Your task to perform on an android device: turn off location Image 0: 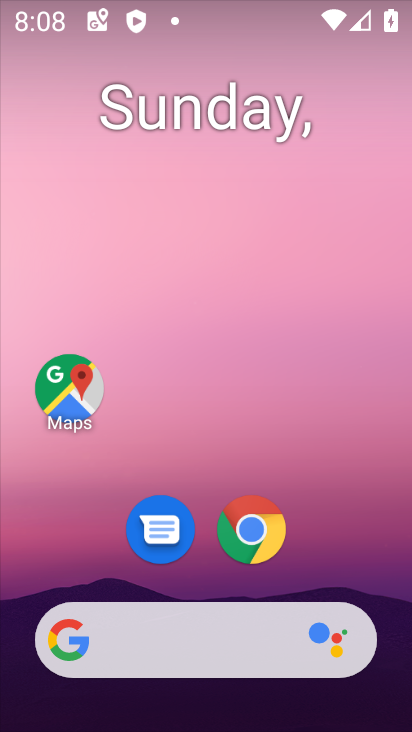
Step 0: drag from (370, 573) to (348, 124)
Your task to perform on an android device: turn off location Image 1: 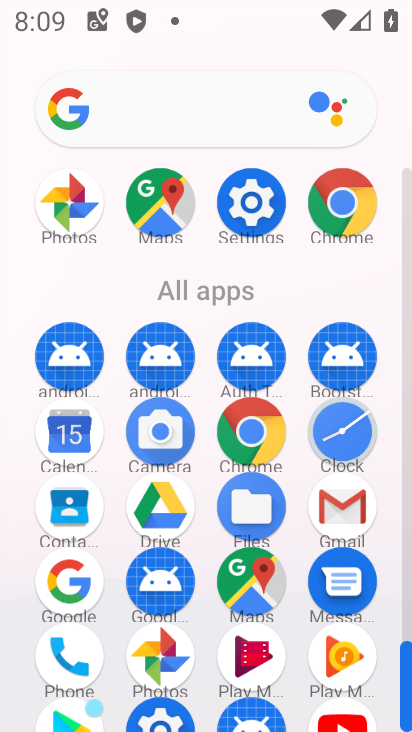
Step 1: click (248, 200)
Your task to perform on an android device: turn off location Image 2: 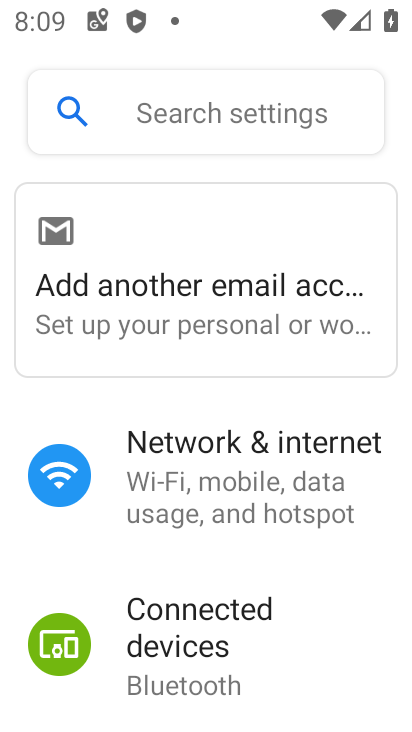
Step 2: drag from (304, 645) to (285, 216)
Your task to perform on an android device: turn off location Image 3: 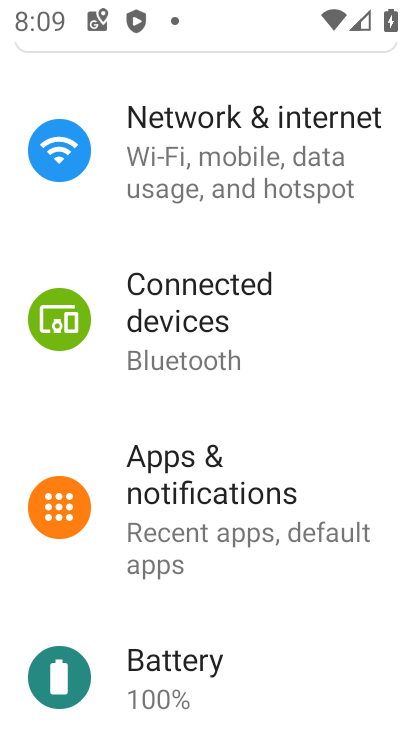
Step 3: drag from (288, 575) to (256, 201)
Your task to perform on an android device: turn off location Image 4: 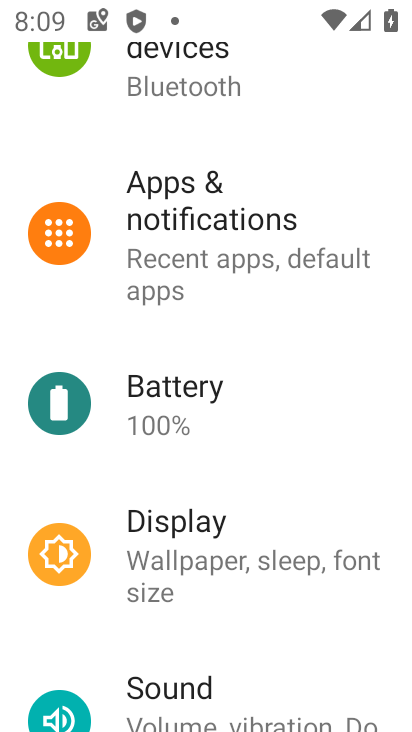
Step 4: drag from (265, 634) to (281, 228)
Your task to perform on an android device: turn off location Image 5: 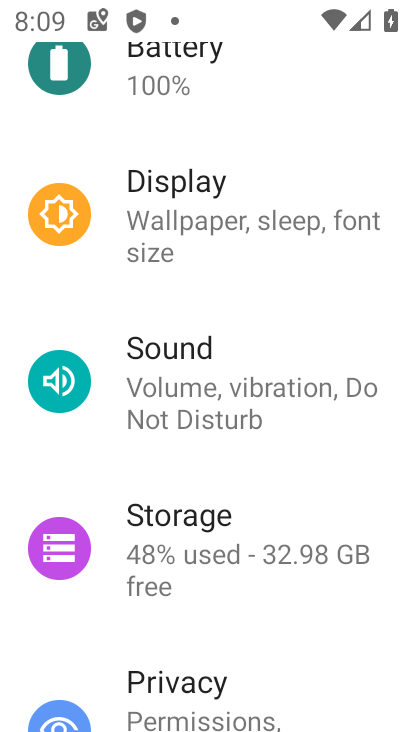
Step 5: drag from (301, 625) to (281, 226)
Your task to perform on an android device: turn off location Image 6: 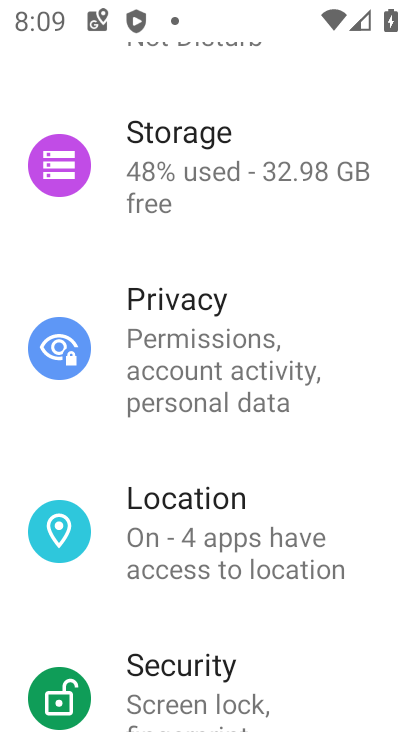
Step 6: click (286, 516)
Your task to perform on an android device: turn off location Image 7: 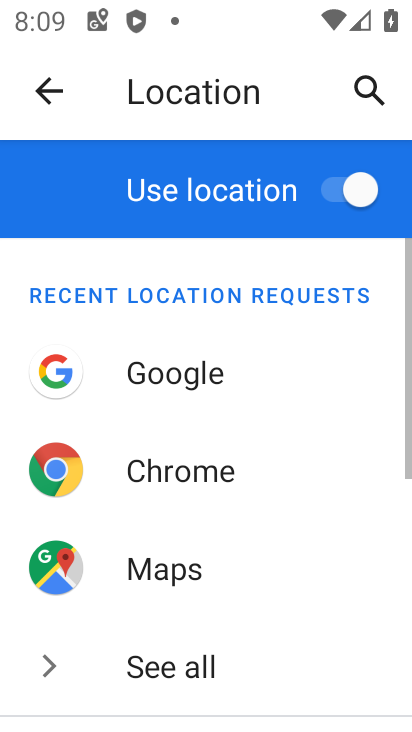
Step 7: drag from (310, 651) to (313, 221)
Your task to perform on an android device: turn off location Image 8: 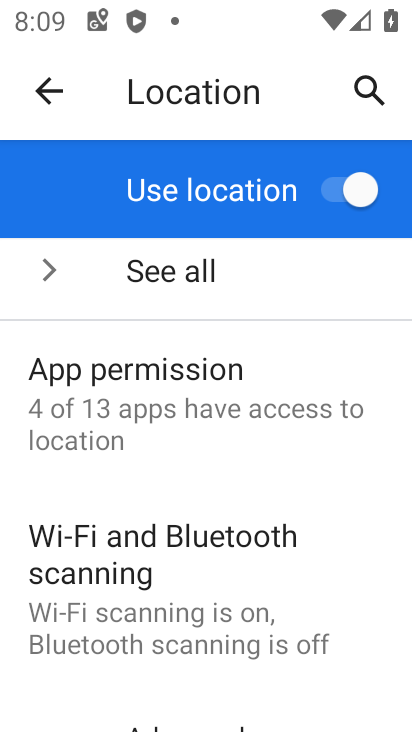
Step 8: drag from (341, 572) to (314, 324)
Your task to perform on an android device: turn off location Image 9: 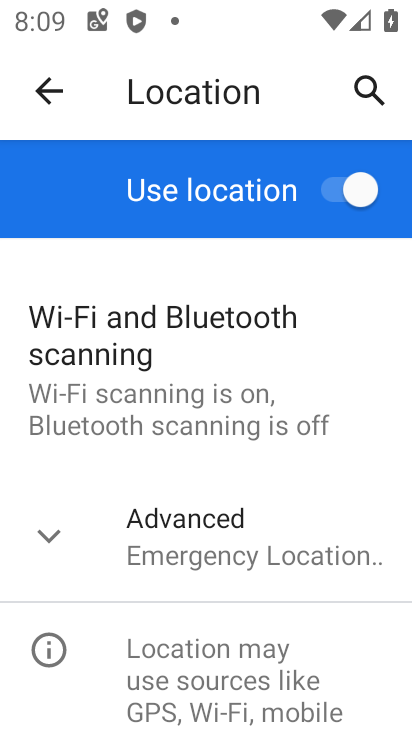
Step 9: drag from (339, 634) to (339, 341)
Your task to perform on an android device: turn off location Image 10: 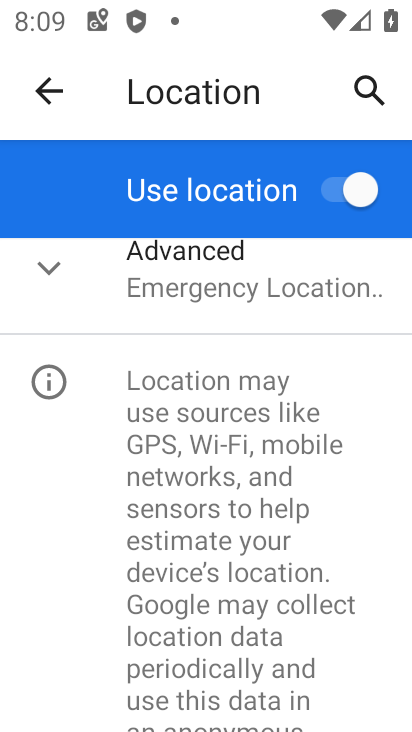
Step 10: drag from (363, 670) to (356, 347)
Your task to perform on an android device: turn off location Image 11: 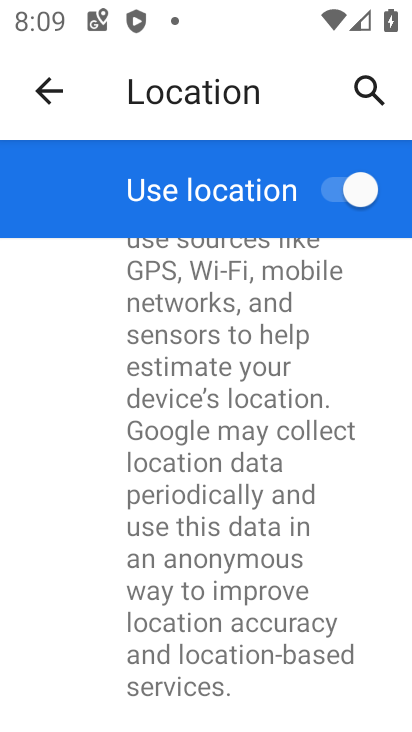
Step 11: drag from (353, 296) to (296, 659)
Your task to perform on an android device: turn off location Image 12: 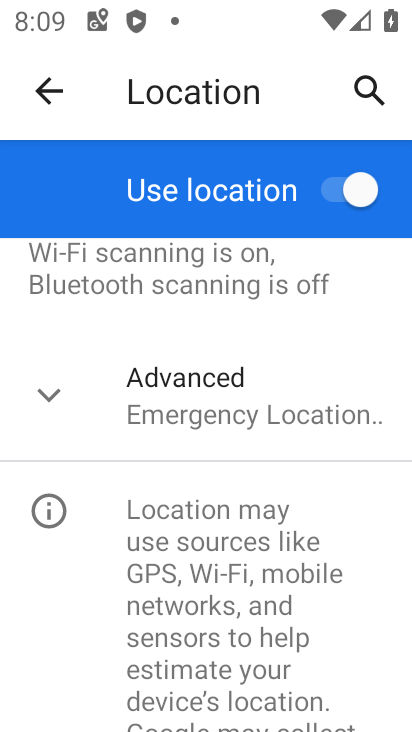
Step 12: drag from (288, 360) to (217, 650)
Your task to perform on an android device: turn off location Image 13: 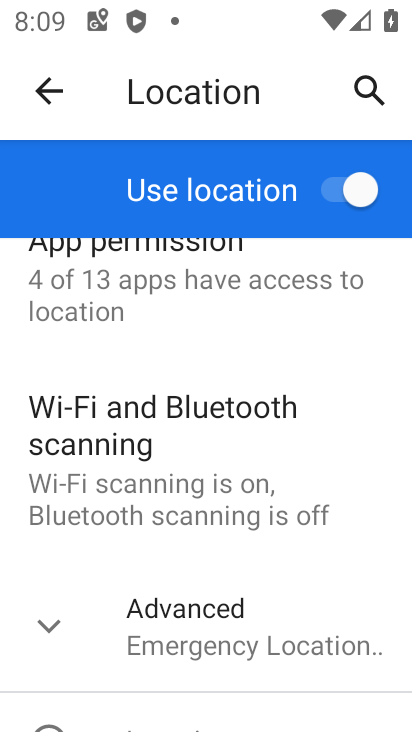
Step 13: drag from (133, 306) to (202, 582)
Your task to perform on an android device: turn off location Image 14: 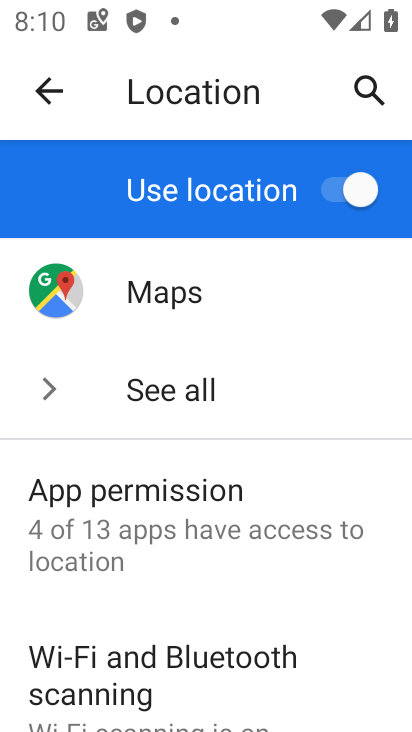
Step 14: drag from (288, 697) to (324, 433)
Your task to perform on an android device: turn off location Image 15: 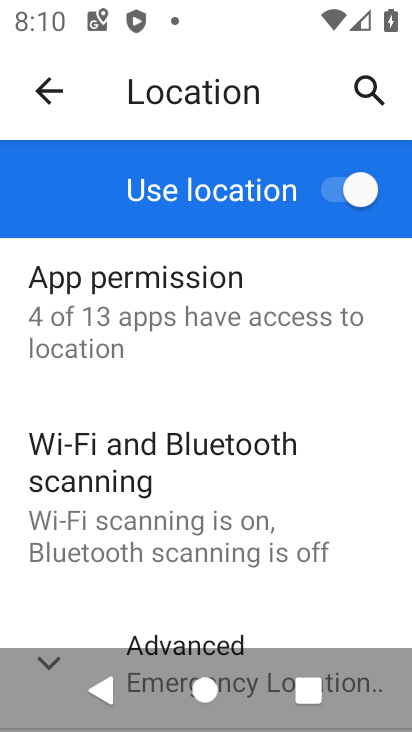
Step 15: drag from (323, 605) to (321, 392)
Your task to perform on an android device: turn off location Image 16: 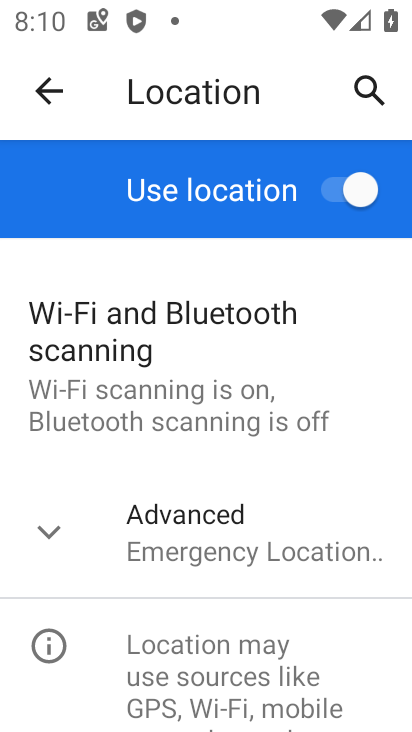
Step 16: drag from (333, 644) to (313, 402)
Your task to perform on an android device: turn off location Image 17: 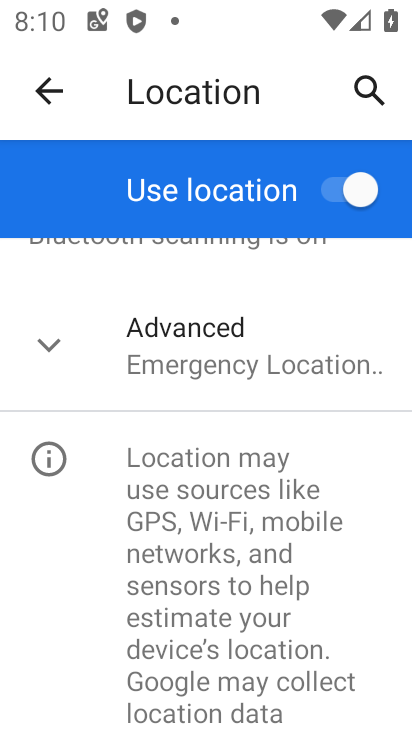
Step 17: click (330, 190)
Your task to perform on an android device: turn off location Image 18: 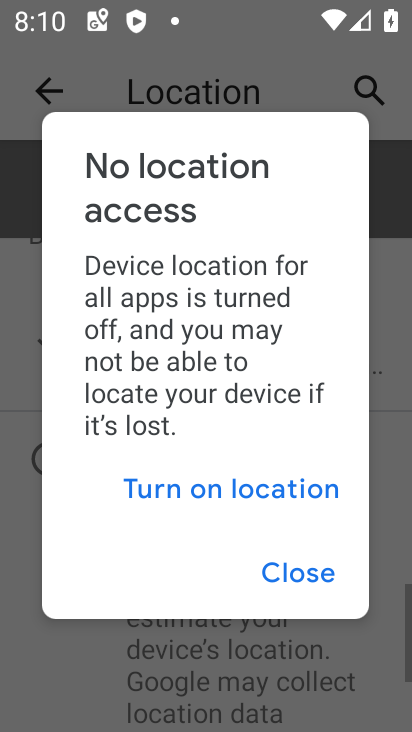
Step 18: task complete